Your task to perform on an android device: set an alarm Image 0: 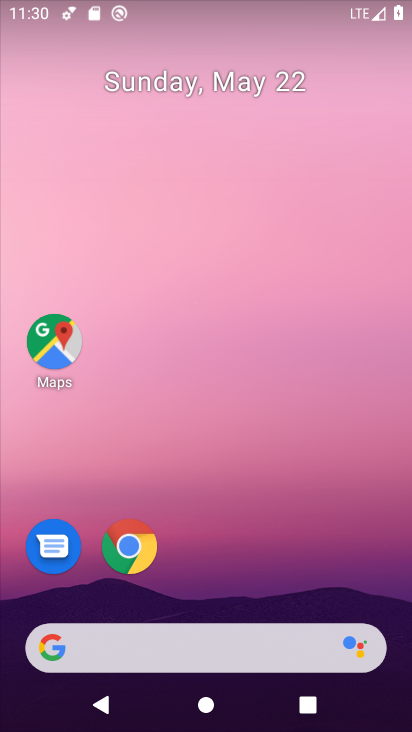
Step 0: drag from (262, 604) to (287, 154)
Your task to perform on an android device: set an alarm Image 1: 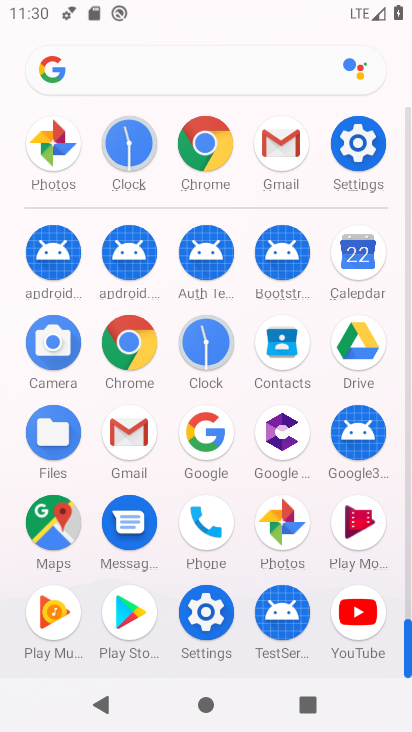
Step 1: click (217, 356)
Your task to perform on an android device: set an alarm Image 2: 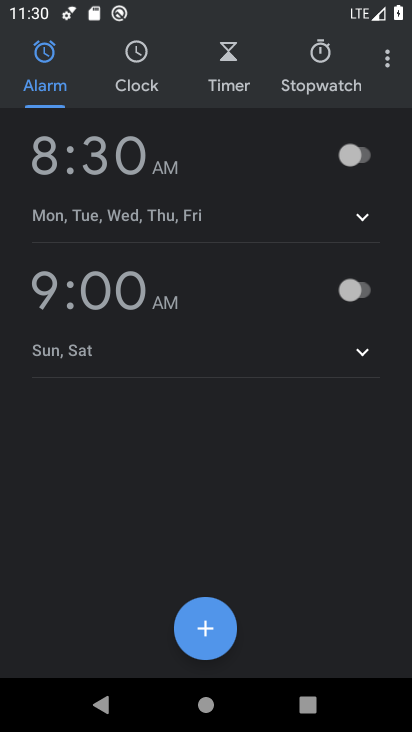
Step 2: click (215, 633)
Your task to perform on an android device: set an alarm Image 3: 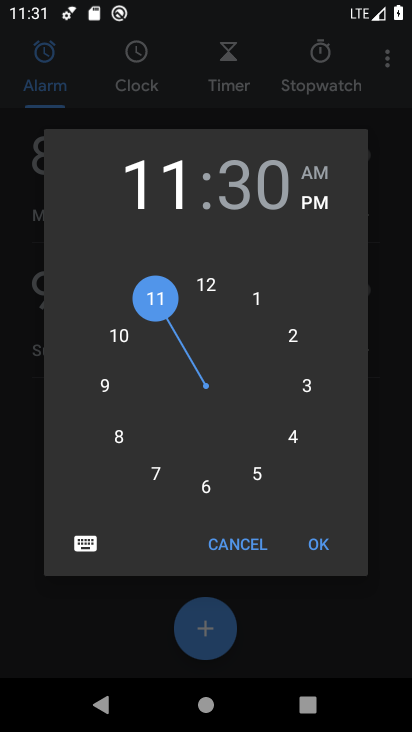
Step 3: click (314, 550)
Your task to perform on an android device: set an alarm Image 4: 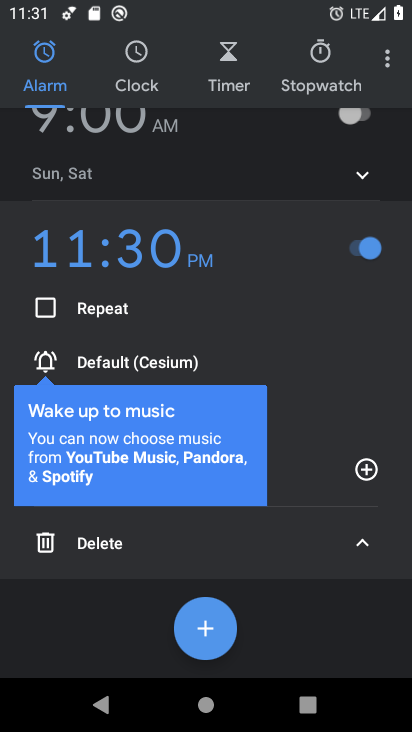
Step 4: task complete